Your task to perform on an android device: Go to Google maps Image 0: 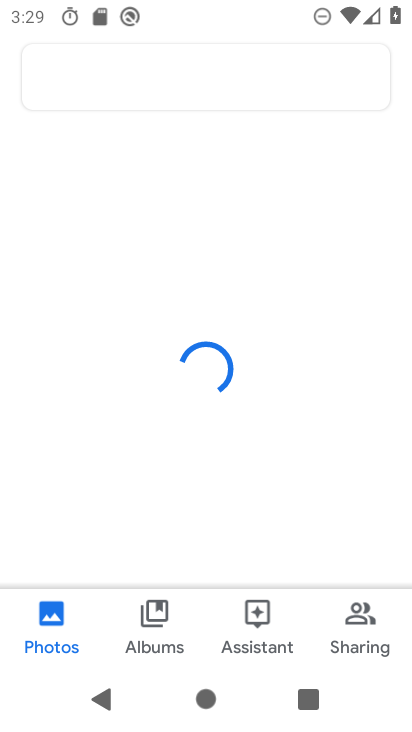
Step 0: press home button
Your task to perform on an android device: Go to Google maps Image 1: 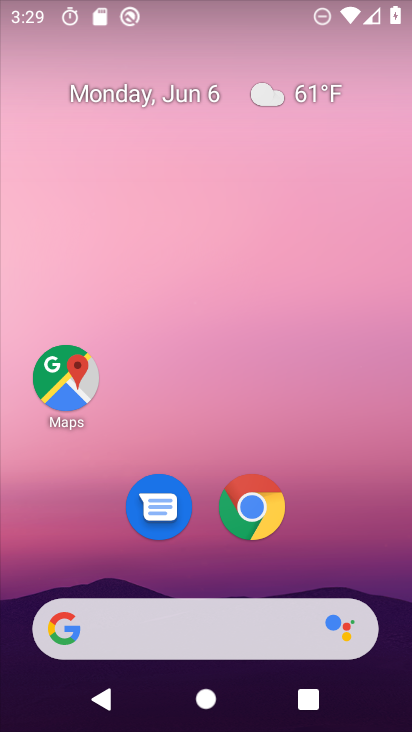
Step 1: click (81, 388)
Your task to perform on an android device: Go to Google maps Image 2: 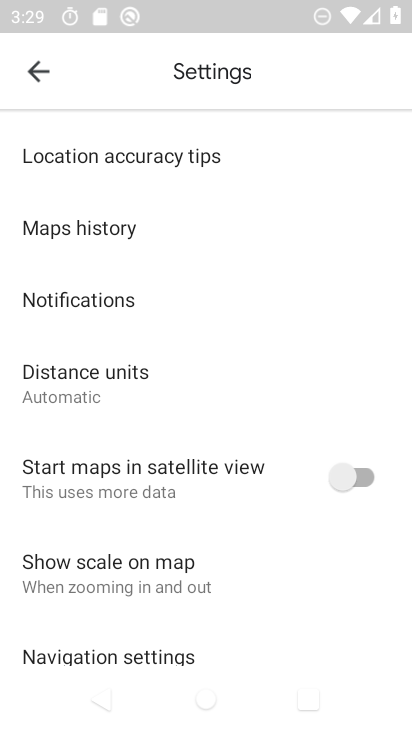
Step 2: click (43, 74)
Your task to perform on an android device: Go to Google maps Image 3: 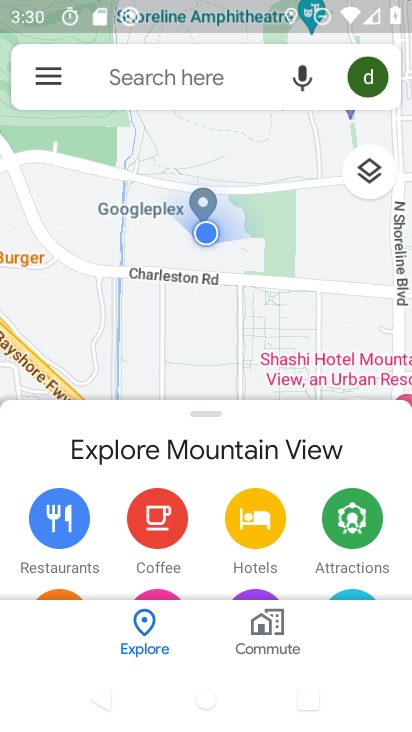
Step 3: task complete